Your task to perform on an android device: open a new tab in the chrome app Image 0: 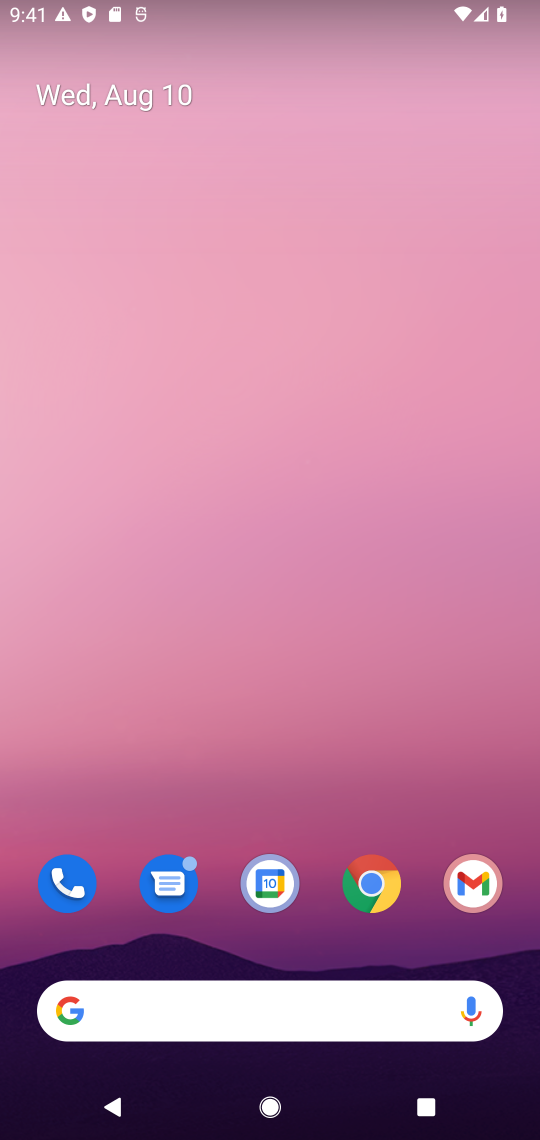
Step 0: click (373, 907)
Your task to perform on an android device: open a new tab in the chrome app Image 1: 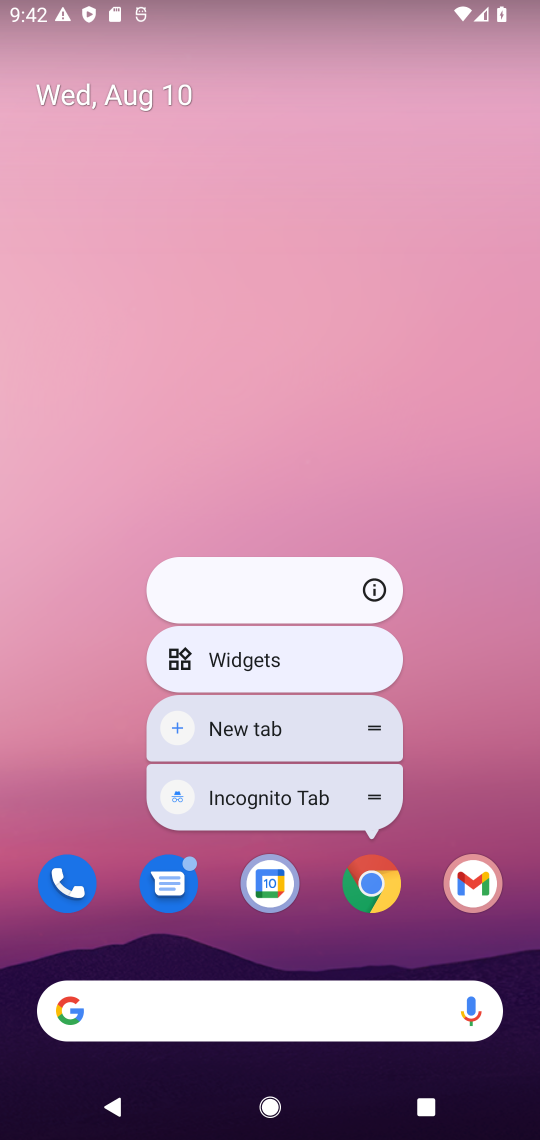
Step 1: click (373, 907)
Your task to perform on an android device: open a new tab in the chrome app Image 2: 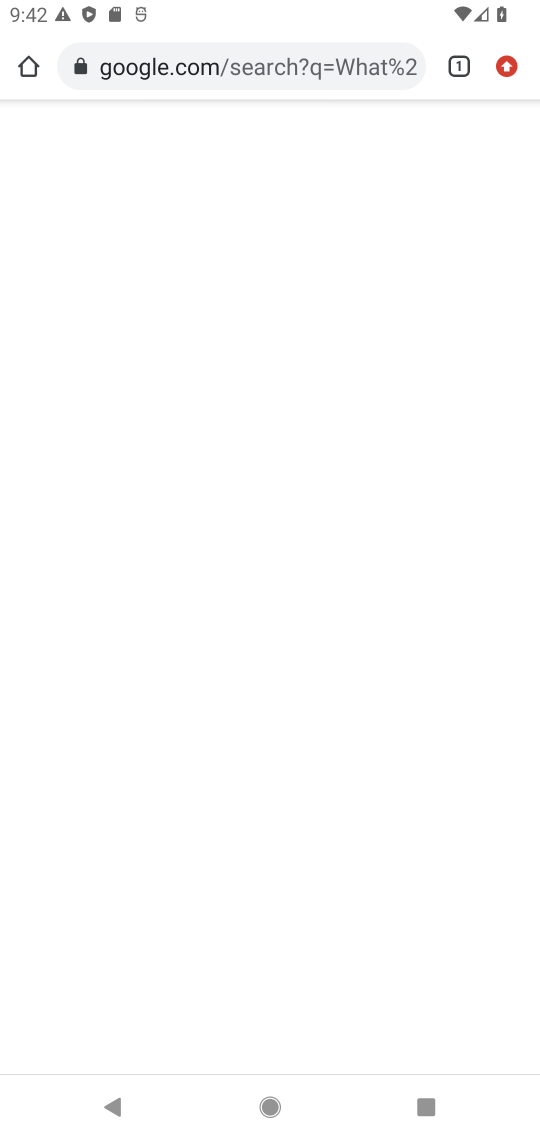
Step 2: task complete